Your task to perform on an android device: Open network settings Image 0: 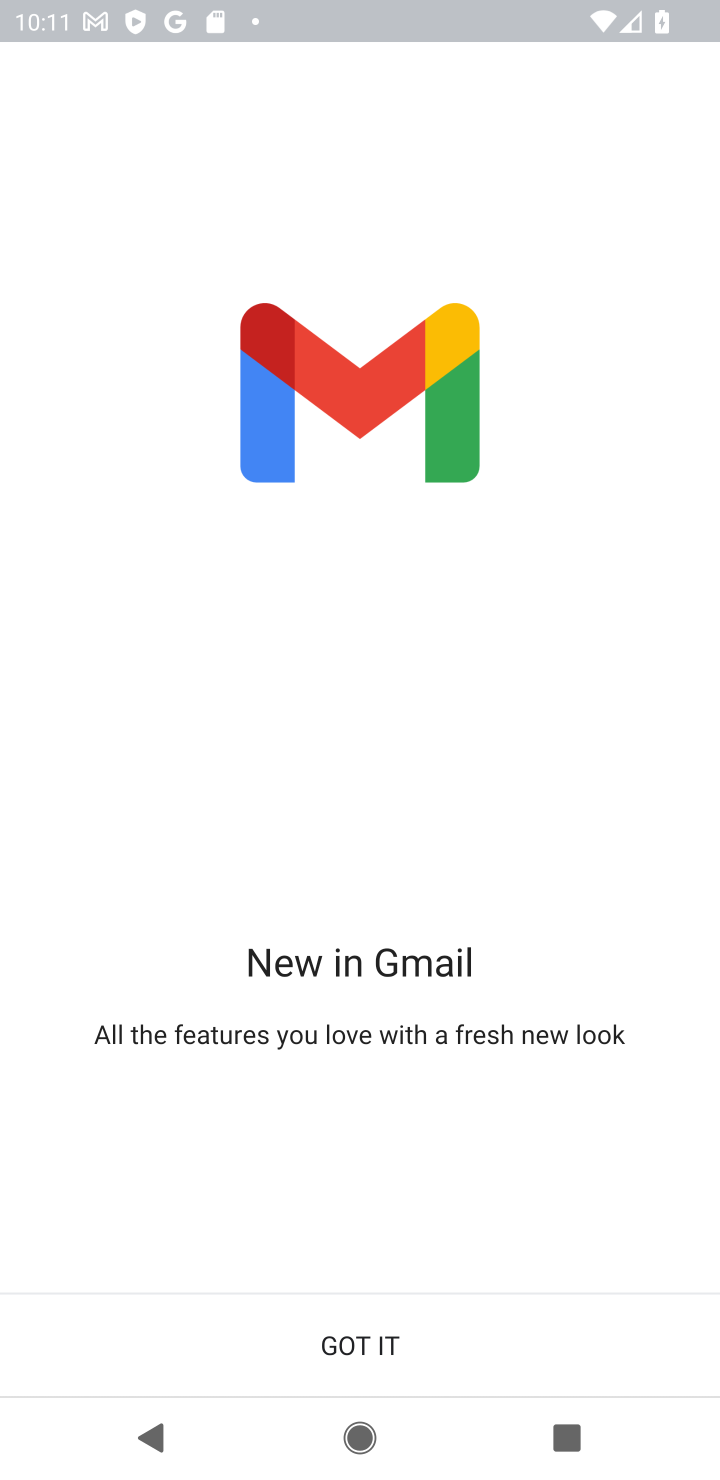
Step 0: press home button
Your task to perform on an android device: Open network settings Image 1: 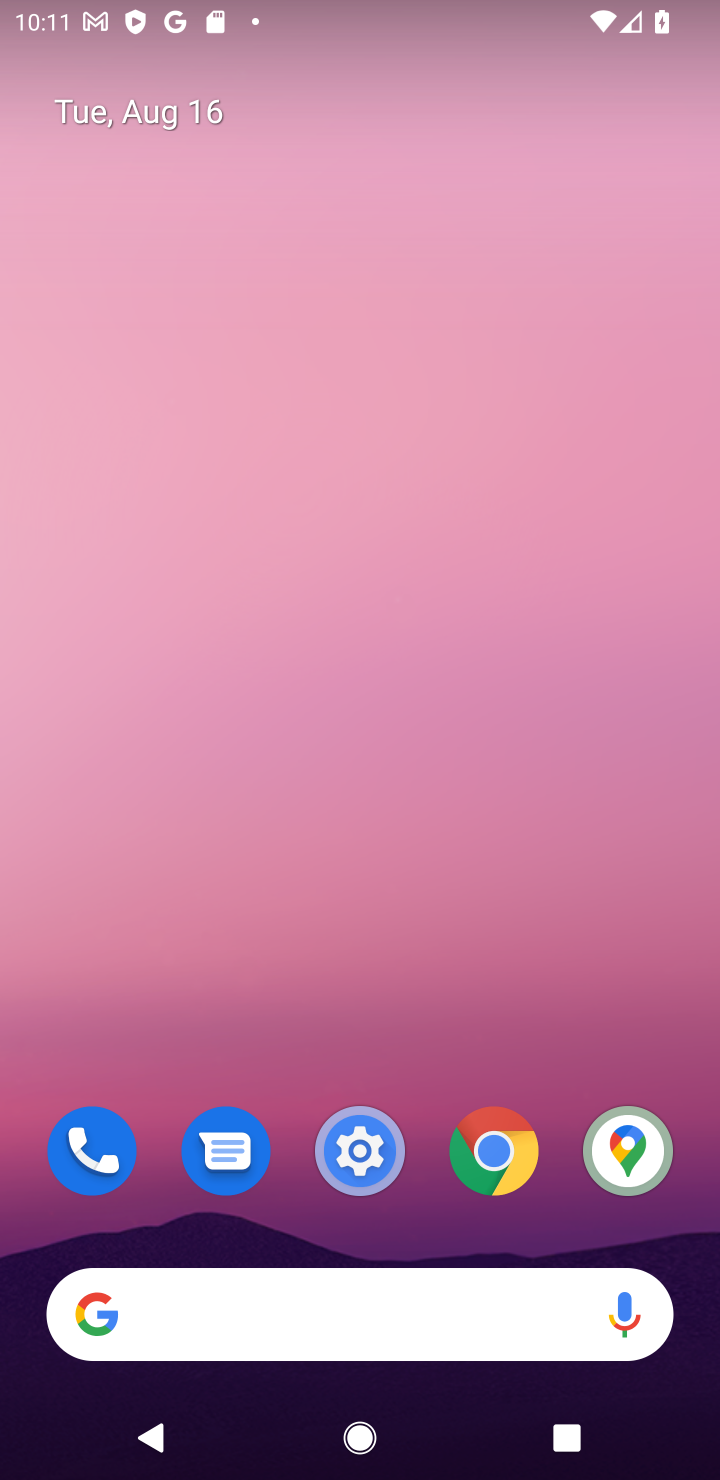
Step 1: click (361, 1147)
Your task to perform on an android device: Open network settings Image 2: 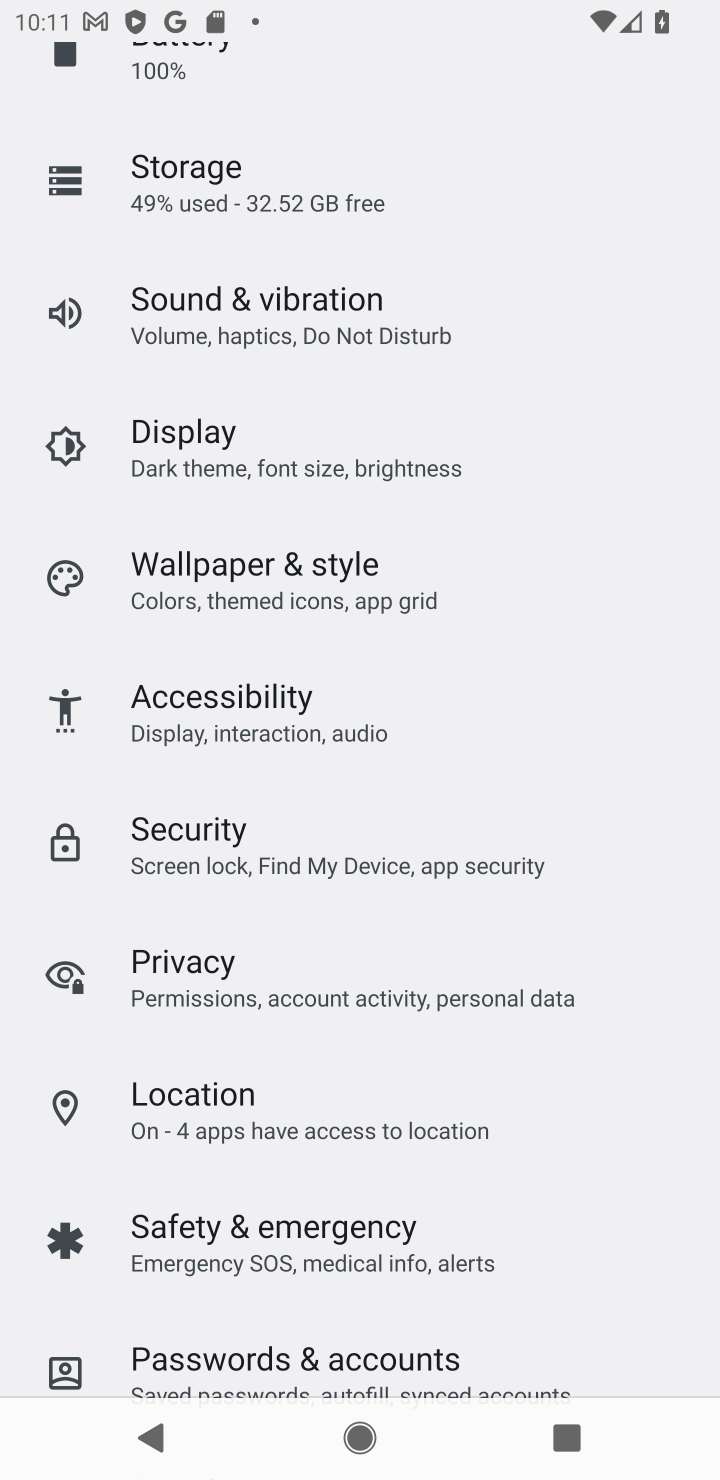
Step 2: drag from (428, 231) to (511, 1436)
Your task to perform on an android device: Open network settings Image 3: 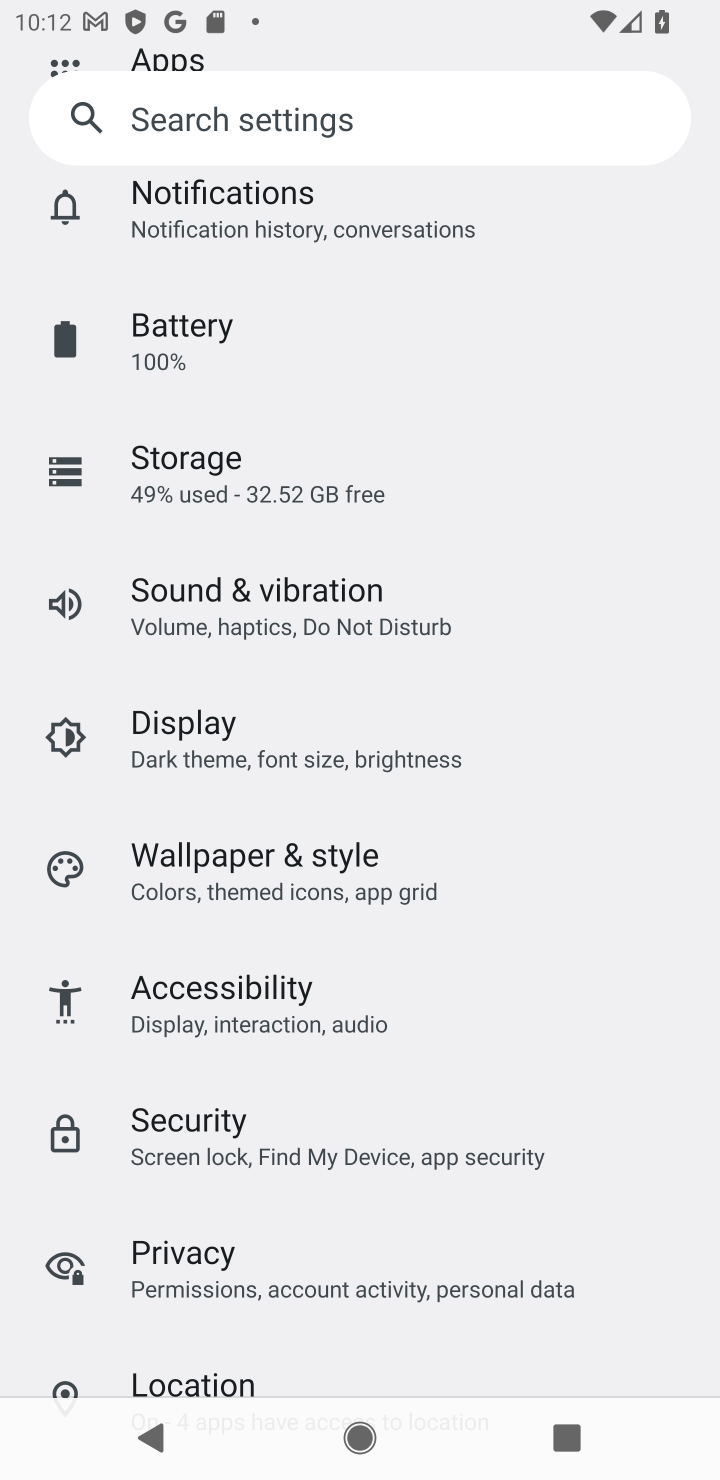
Step 3: drag from (385, 356) to (350, 663)
Your task to perform on an android device: Open network settings Image 4: 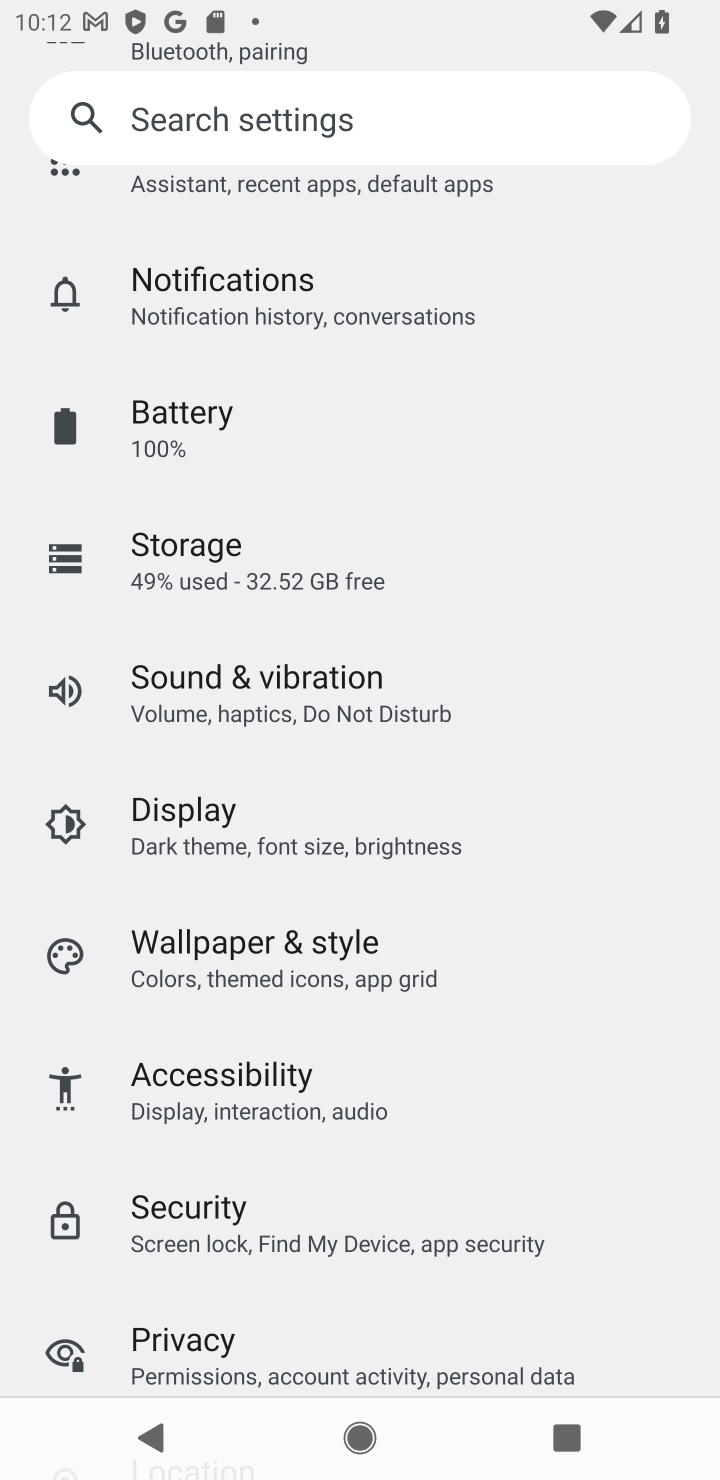
Step 4: drag from (334, 427) to (477, 1012)
Your task to perform on an android device: Open network settings Image 5: 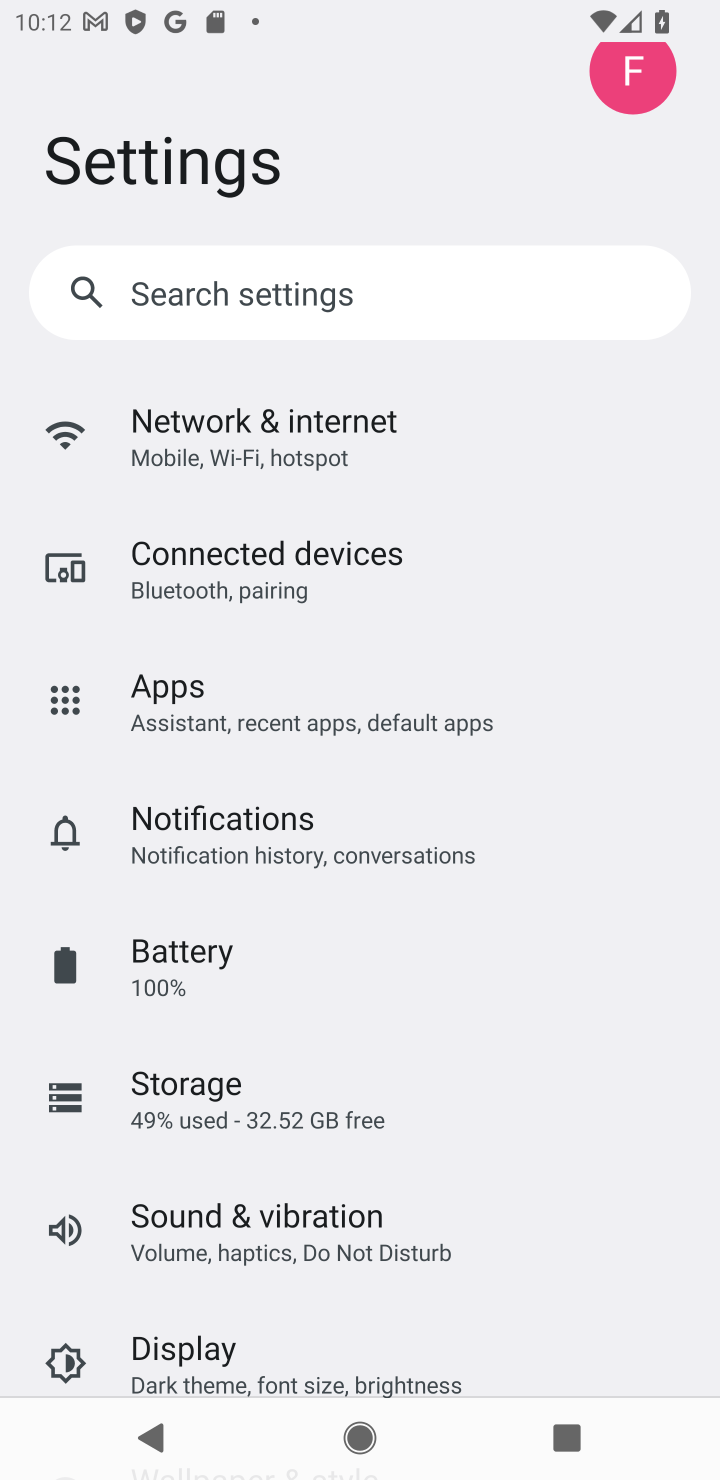
Step 5: click (243, 425)
Your task to perform on an android device: Open network settings Image 6: 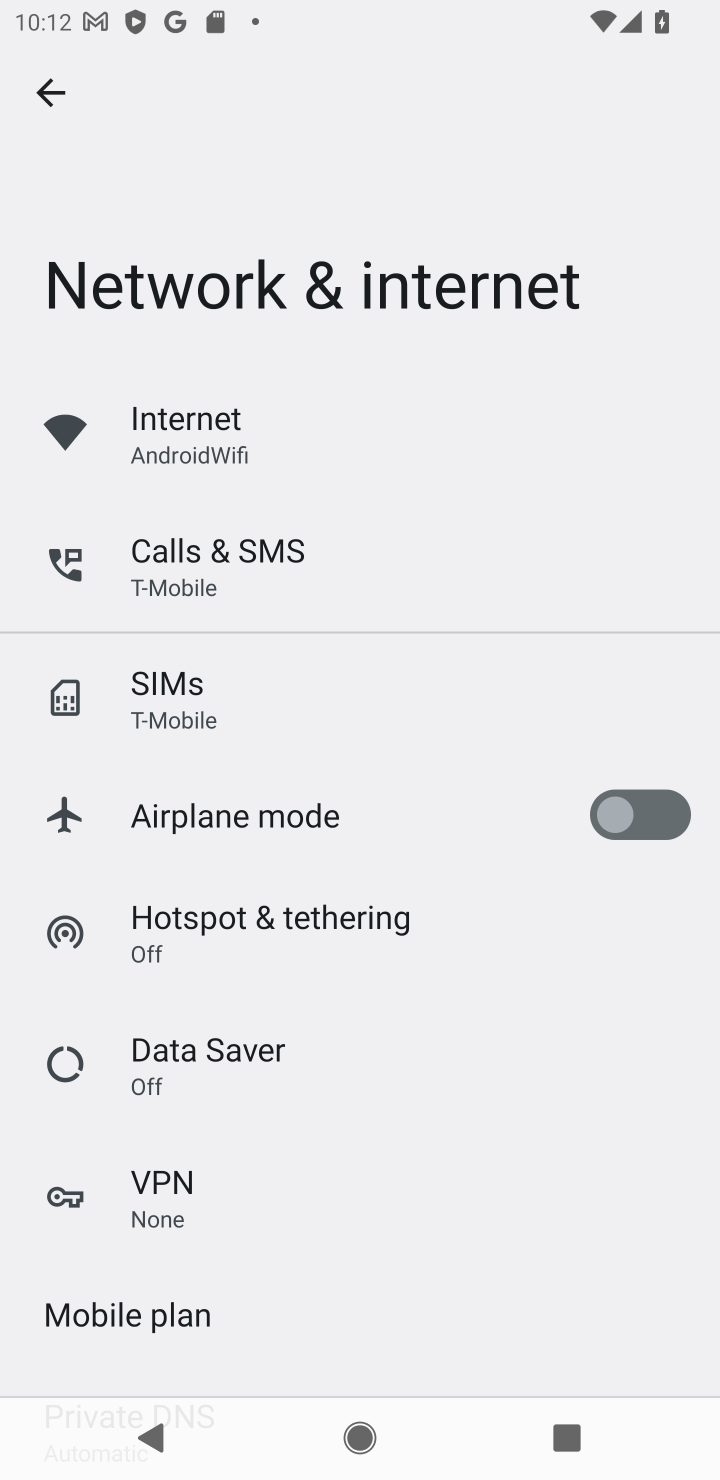
Step 6: task complete